Your task to perform on an android device: clear all cookies in the chrome app Image 0: 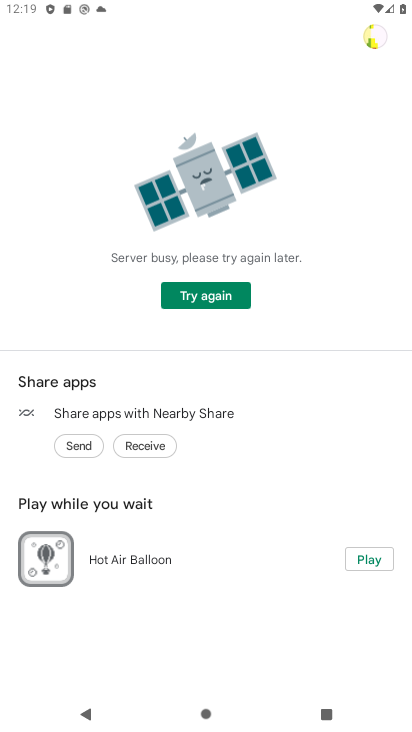
Step 0: press home button
Your task to perform on an android device: clear all cookies in the chrome app Image 1: 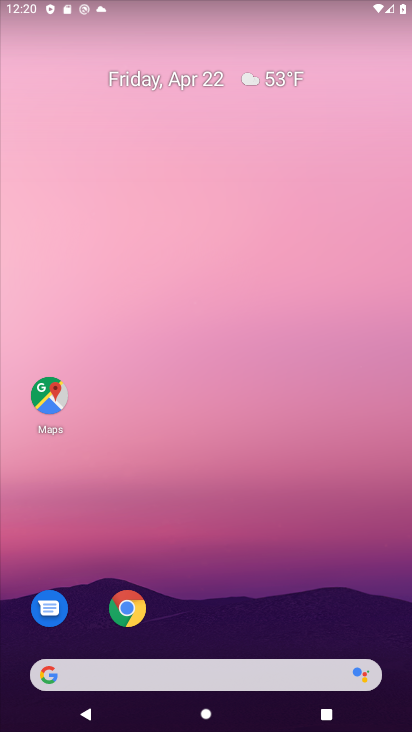
Step 1: drag from (288, 614) to (272, 166)
Your task to perform on an android device: clear all cookies in the chrome app Image 2: 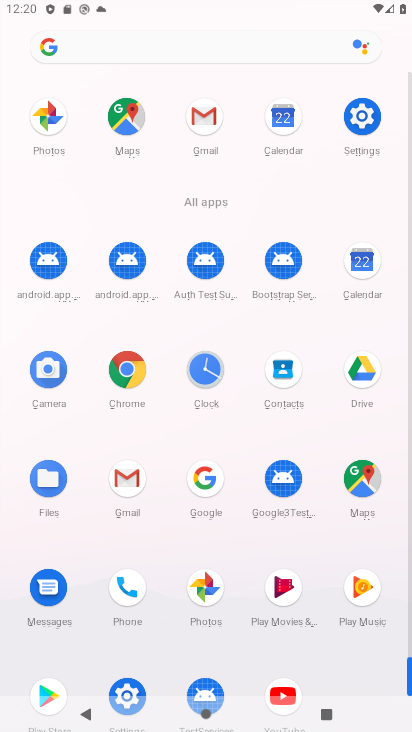
Step 2: click (141, 380)
Your task to perform on an android device: clear all cookies in the chrome app Image 3: 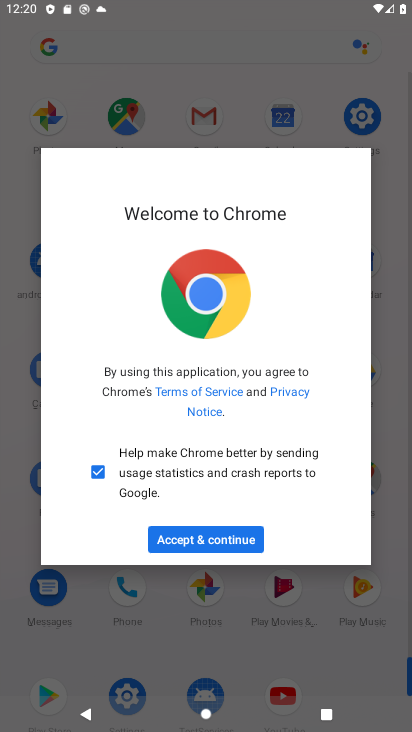
Step 3: click (213, 536)
Your task to perform on an android device: clear all cookies in the chrome app Image 4: 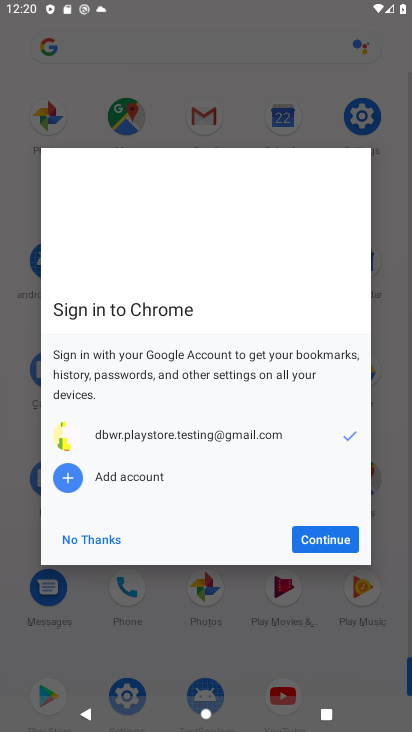
Step 4: click (351, 548)
Your task to perform on an android device: clear all cookies in the chrome app Image 5: 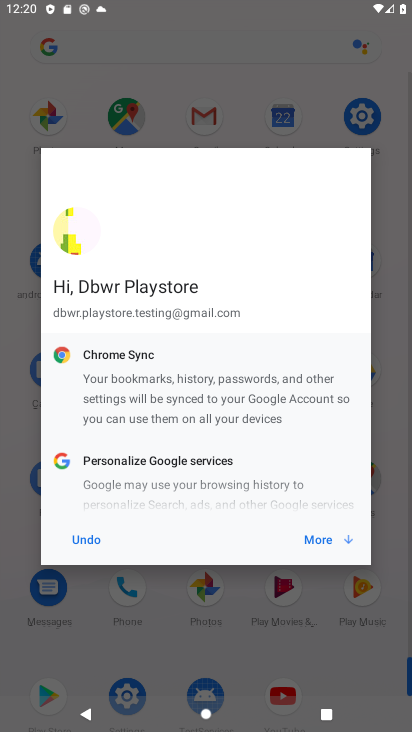
Step 5: click (337, 538)
Your task to perform on an android device: clear all cookies in the chrome app Image 6: 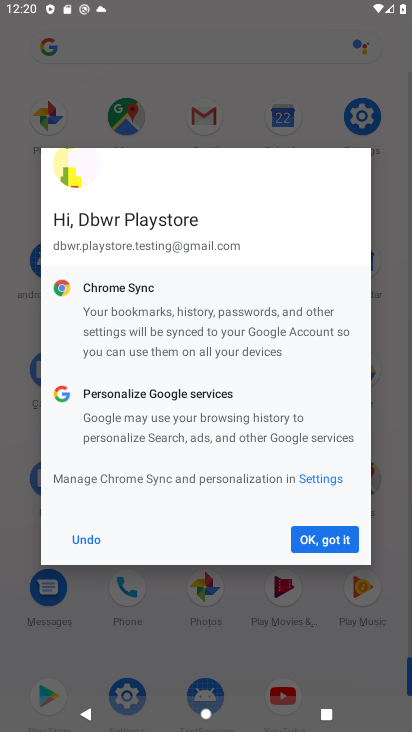
Step 6: click (337, 538)
Your task to perform on an android device: clear all cookies in the chrome app Image 7: 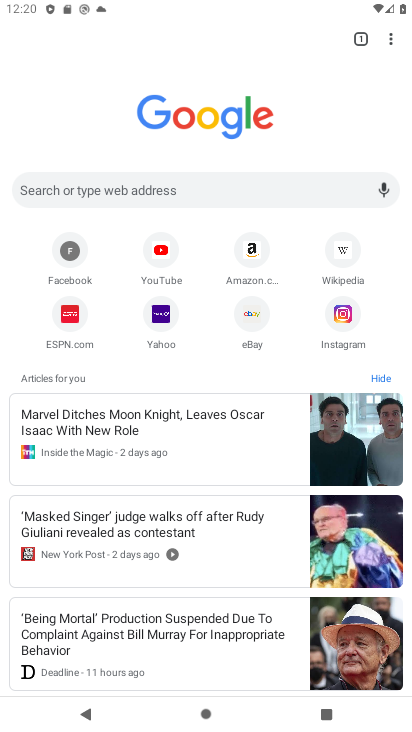
Step 7: click (395, 47)
Your task to perform on an android device: clear all cookies in the chrome app Image 8: 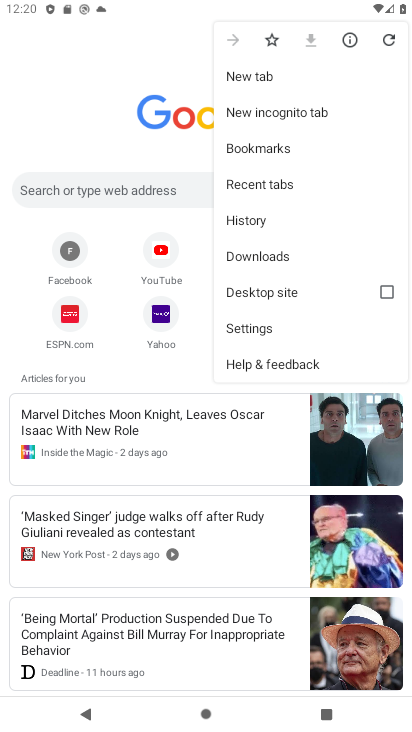
Step 8: click (248, 323)
Your task to perform on an android device: clear all cookies in the chrome app Image 9: 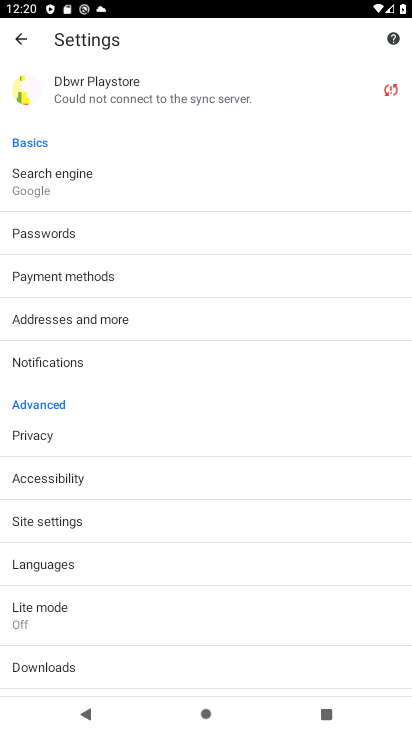
Step 9: click (34, 434)
Your task to perform on an android device: clear all cookies in the chrome app Image 10: 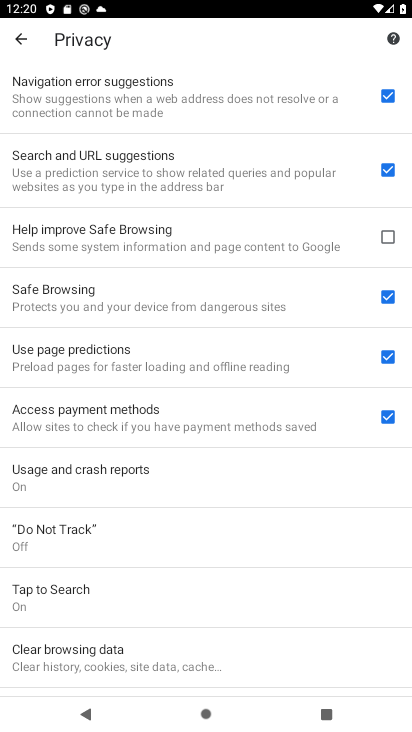
Step 10: click (123, 657)
Your task to perform on an android device: clear all cookies in the chrome app Image 11: 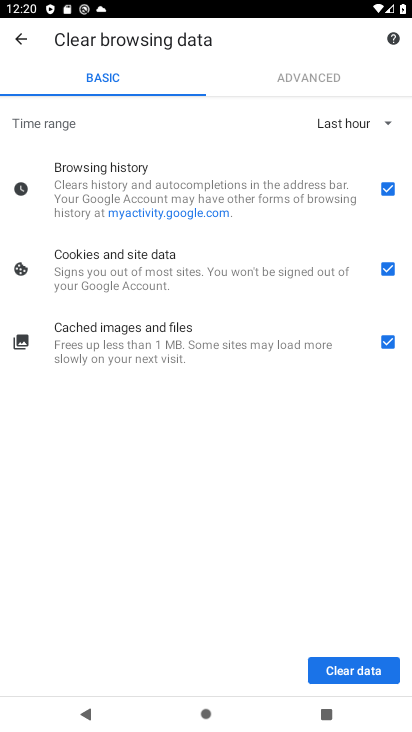
Step 11: click (390, 184)
Your task to perform on an android device: clear all cookies in the chrome app Image 12: 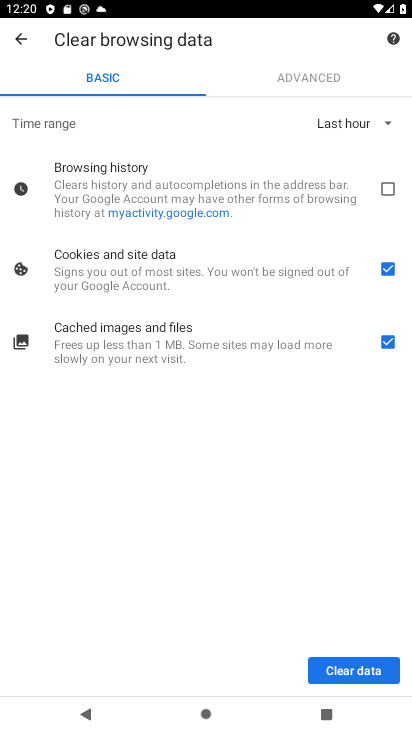
Step 12: click (391, 345)
Your task to perform on an android device: clear all cookies in the chrome app Image 13: 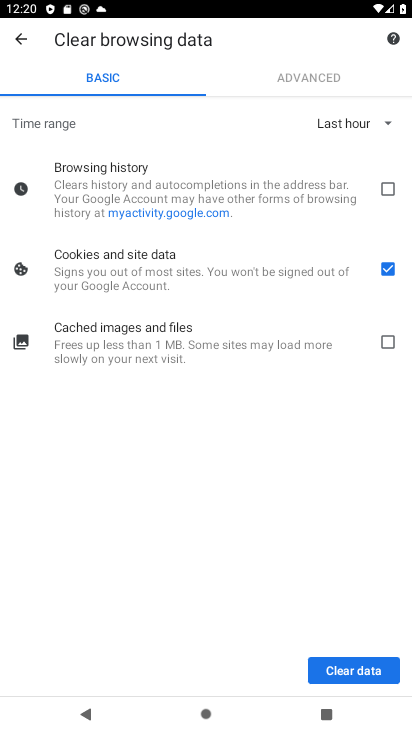
Step 13: click (360, 668)
Your task to perform on an android device: clear all cookies in the chrome app Image 14: 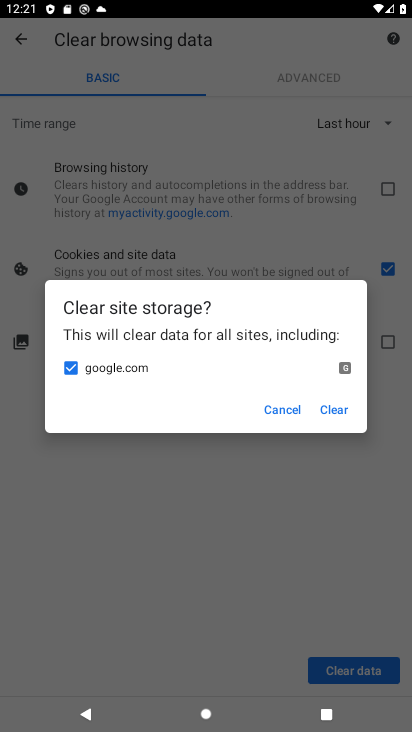
Step 14: click (336, 411)
Your task to perform on an android device: clear all cookies in the chrome app Image 15: 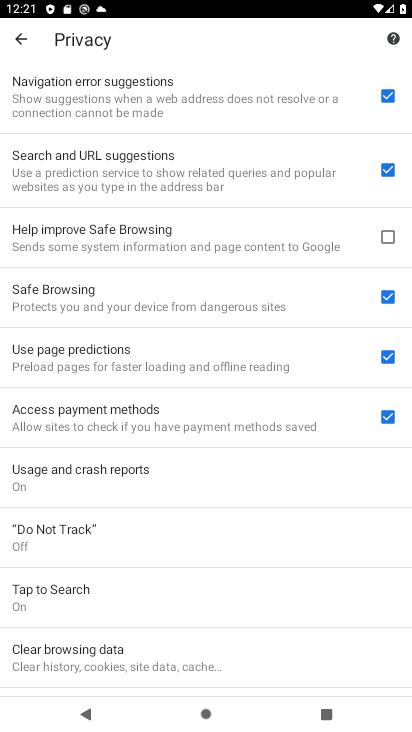
Step 15: task complete